Your task to perform on an android device: Open eBay Image 0: 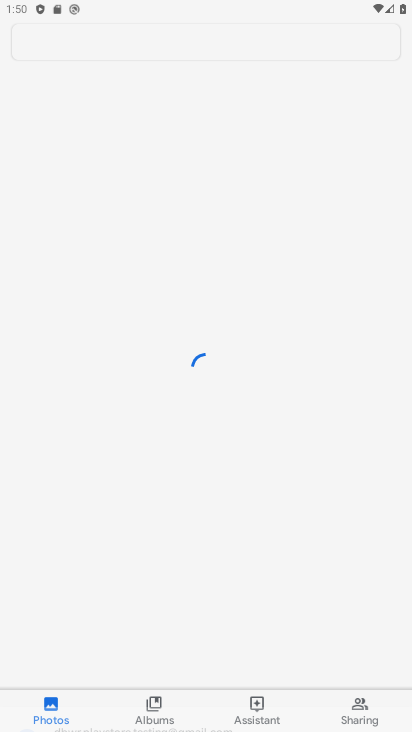
Step 0: press home button
Your task to perform on an android device: Open eBay Image 1: 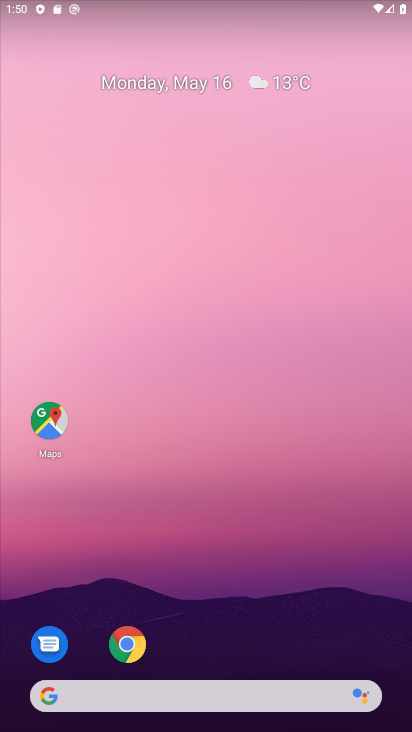
Step 1: click (144, 634)
Your task to perform on an android device: Open eBay Image 2: 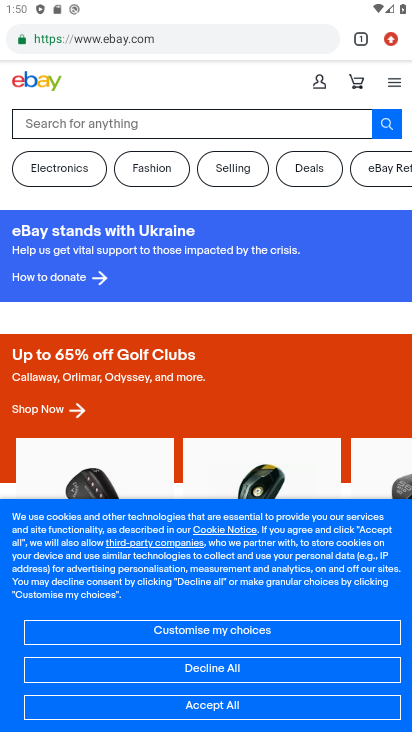
Step 2: task complete